Your task to perform on an android device: snooze an email in the gmail app Image 0: 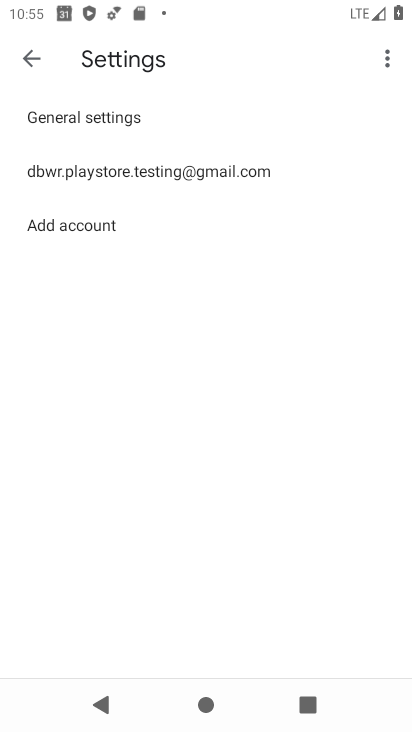
Step 0: click (37, 72)
Your task to perform on an android device: snooze an email in the gmail app Image 1: 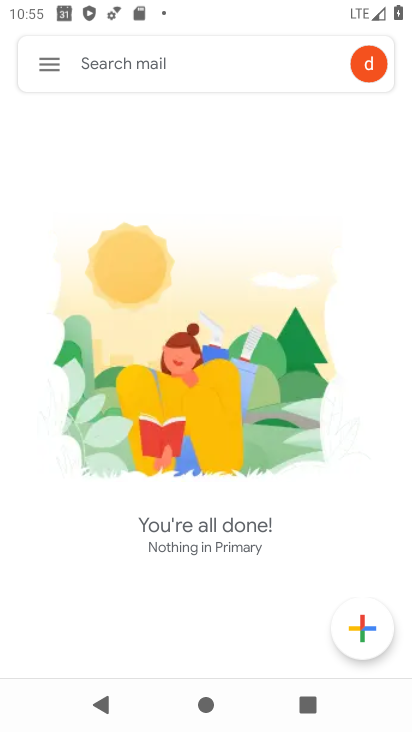
Step 1: click (41, 71)
Your task to perform on an android device: snooze an email in the gmail app Image 2: 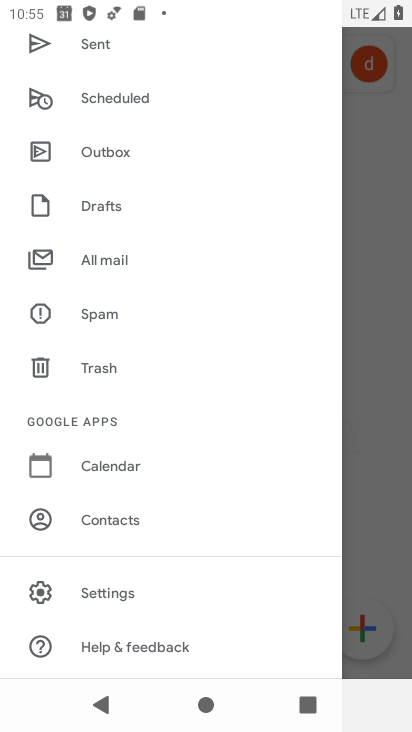
Step 2: click (121, 268)
Your task to perform on an android device: snooze an email in the gmail app Image 3: 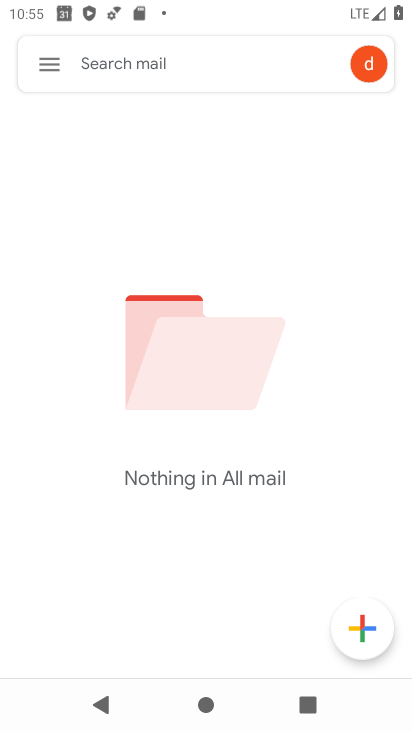
Step 3: task complete